Your task to perform on an android device: all mails in gmail Image 0: 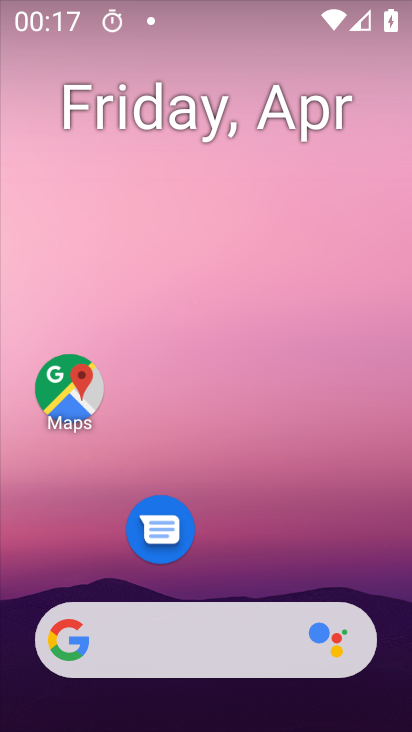
Step 0: drag from (218, 488) to (400, 2)
Your task to perform on an android device: all mails in gmail Image 1: 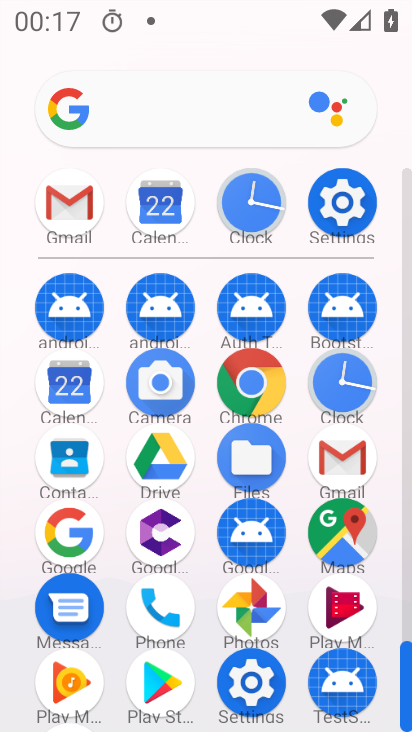
Step 1: click (347, 451)
Your task to perform on an android device: all mails in gmail Image 2: 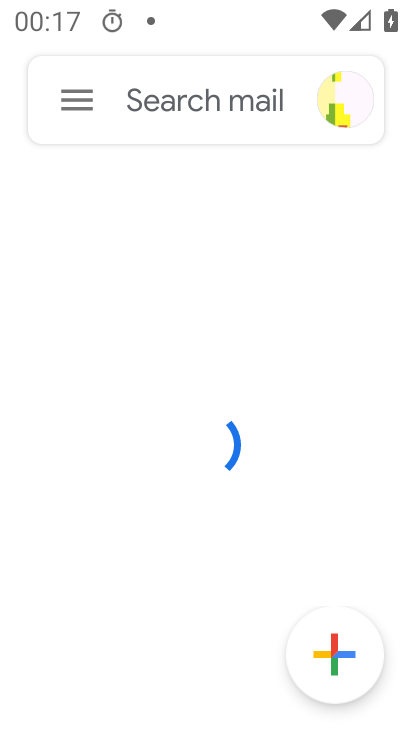
Step 2: click (65, 104)
Your task to perform on an android device: all mails in gmail Image 3: 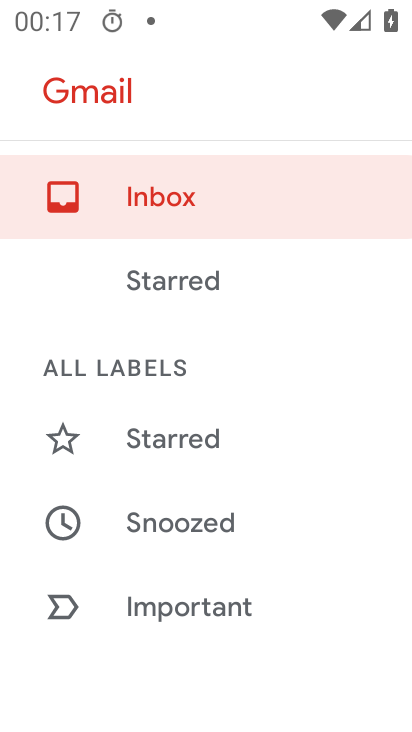
Step 3: drag from (148, 572) to (290, 37)
Your task to perform on an android device: all mails in gmail Image 4: 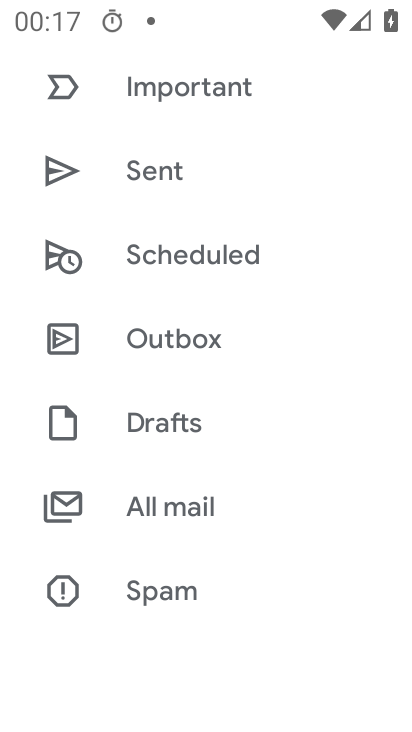
Step 4: click (162, 508)
Your task to perform on an android device: all mails in gmail Image 5: 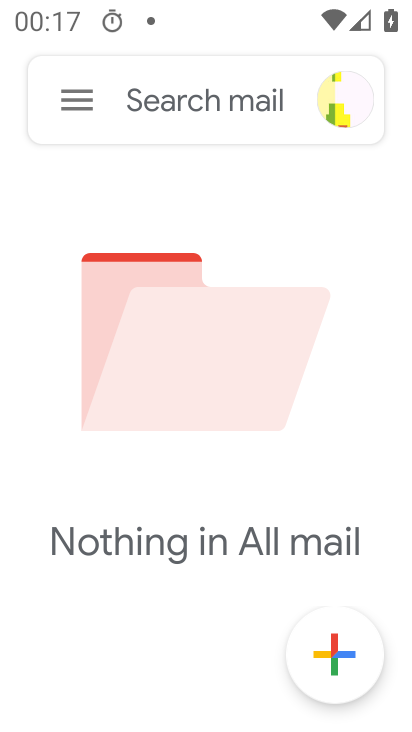
Step 5: task complete